Your task to perform on an android device: change alarm snooze length Image 0: 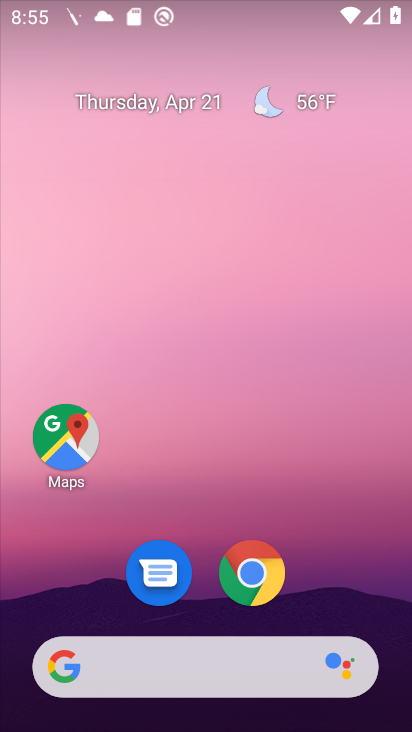
Step 0: drag from (207, 507) to (232, 231)
Your task to perform on an android device: change alarm snooze length Image 1: 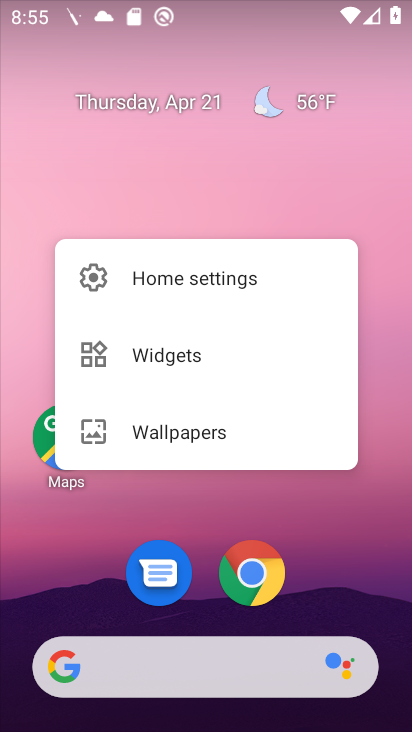
Step 1: drag from (324, 529) to (269, 5)
Your task to perform on an android device: change alarm snooze length Image 2: 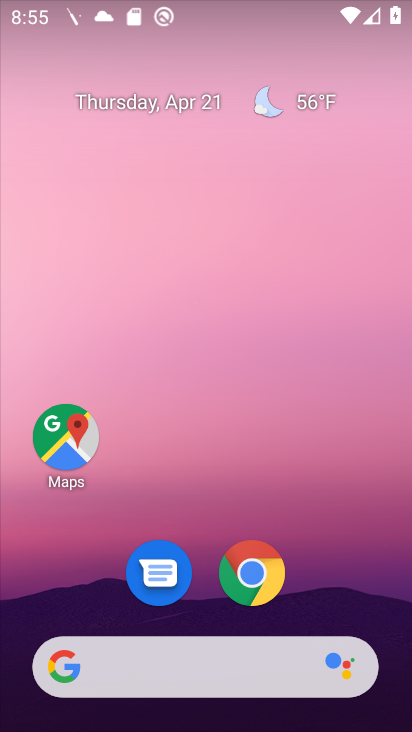
Step 2: drag from (299, 513) to (316, 3)
Your task to perform on an android device: change alarm snooze length Image 3: 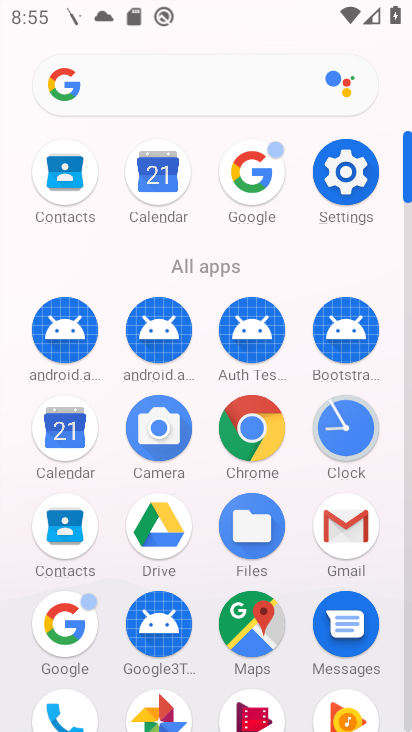
Step 3: click (349, 430)
Your task to perform on an android device: change alarm snooze length Image 4: 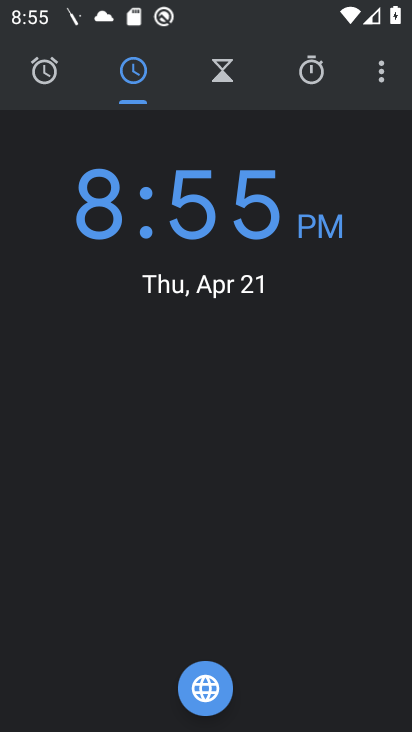
Step 4: click (382, 76)
Your task to perform on an android device: change alarm snooze length Image 5: 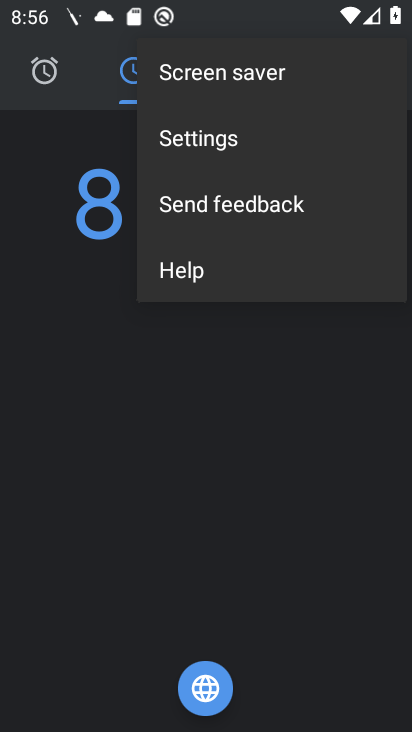
Step 5: click (234, 143)
Your task to perform on an android device: change alarm snooze length Image 6: 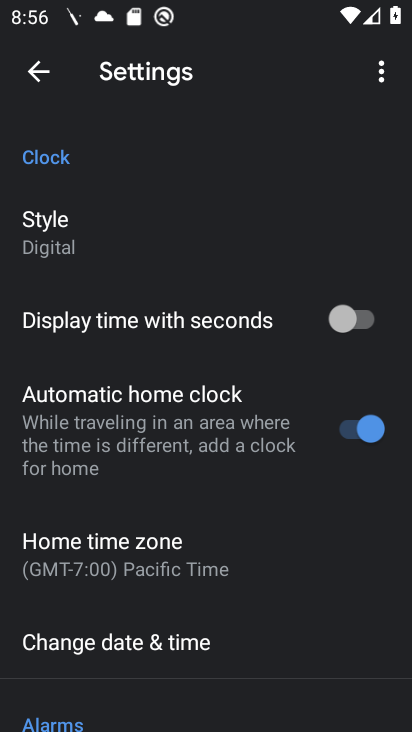
Step 6: drag from (225, 611) to (241, 424)
Your task to perform on an android device: change alarm snooze length Image 7: 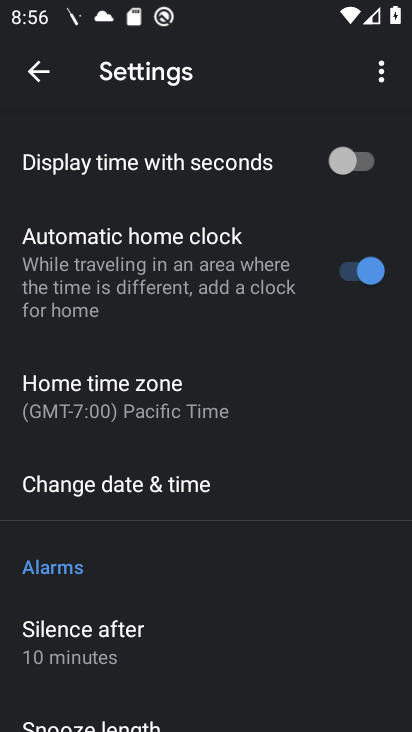
Step 7: drag from (205, 572) to (258, 481)
Your task to perform on an android device: change alarm snooze length Image 8: 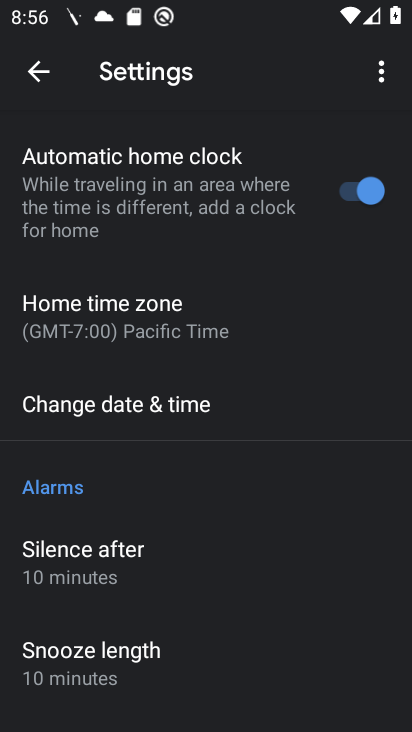
Step 8: click (116, 649)
Your task to perform on an android device: change alarm snooze length Image 9: 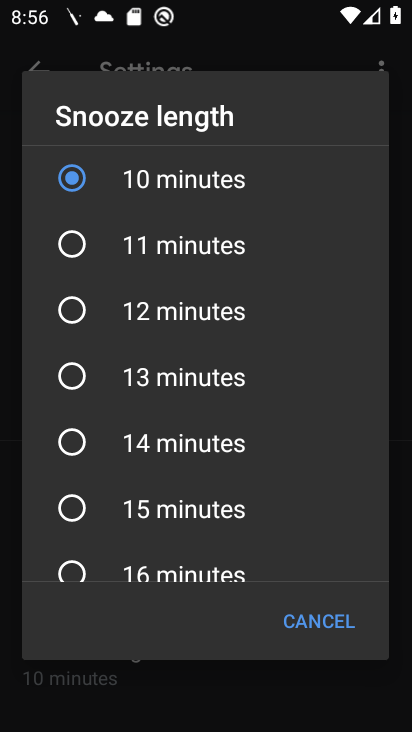
Step 9: click (80, 238)
Your task to perform on an android device: change alarm snooze length Image 10: 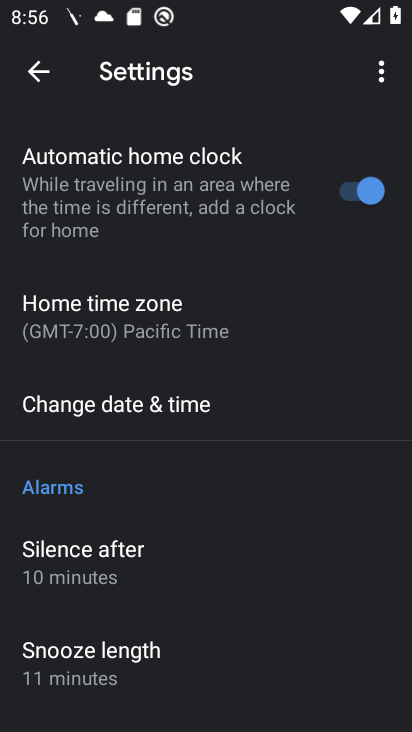
Step 10: task complete